Your task to perform on an android device: open a bookmark in the chrome app Image 0: 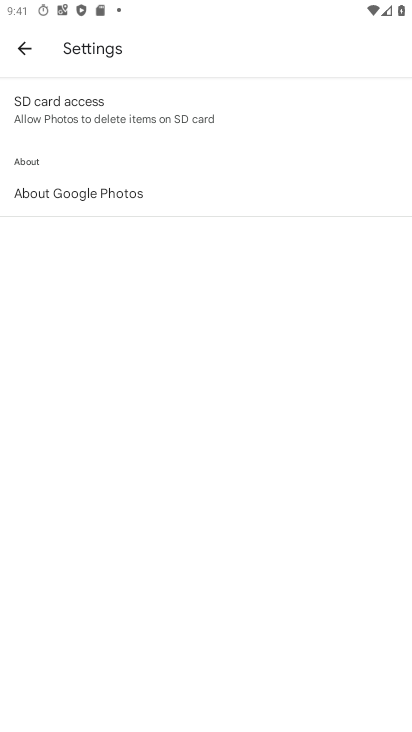
Step 0: press home button
Your task to perform on an android device: open a bookmark in the chrome app Image 1: 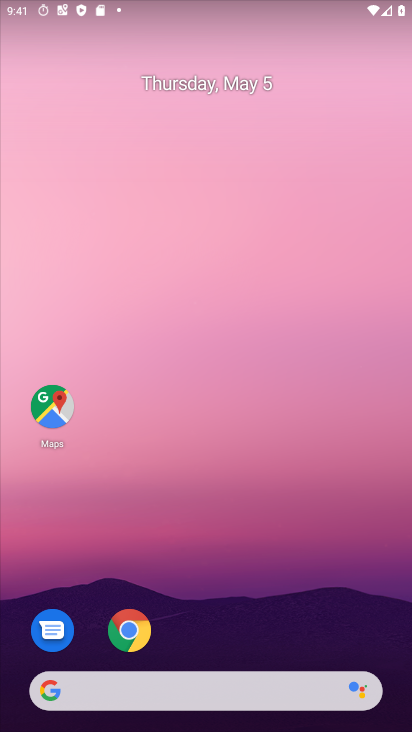
Step 1: click (140, 631)
Your task to perform on an android device: open a bookmark in the chrome app Image 2: 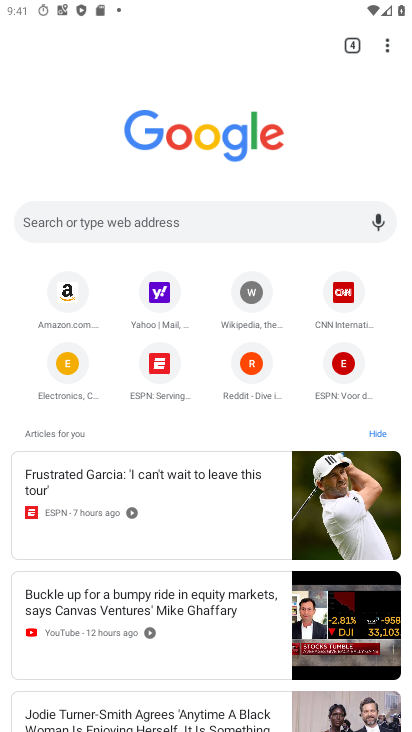
Step 2: task complete